Your task to perform on an android device: turn on improve location accuracy Image 0: 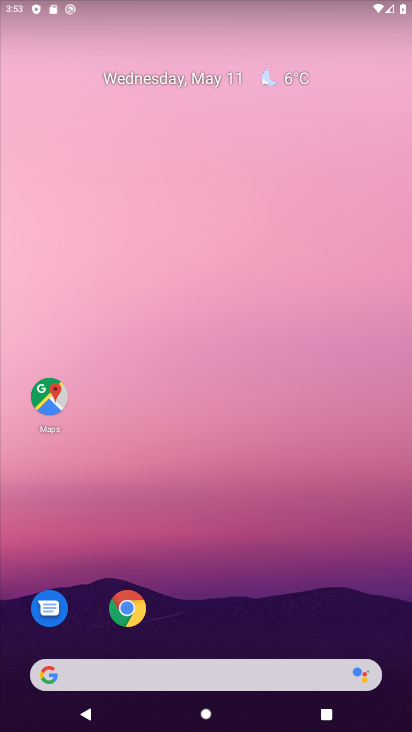
Step 0: drag from (220, 726) to (217, 111)
Your task to perform on an android device: turn on improve location accuracy Image 1: 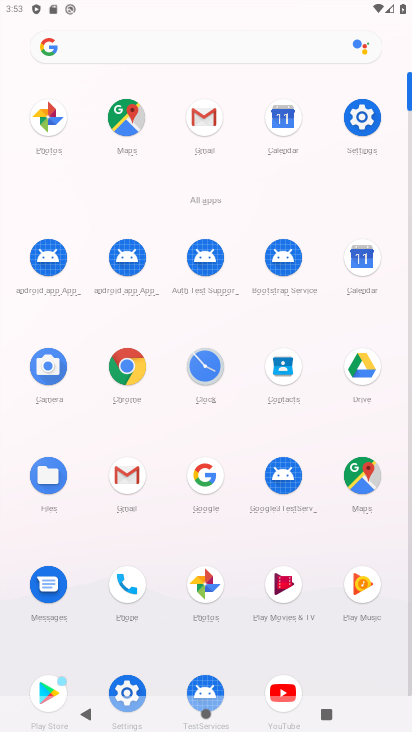
Step 1: click (358, 122)
Your task to perform on an android device: turn on improve location accuracy Image 2: 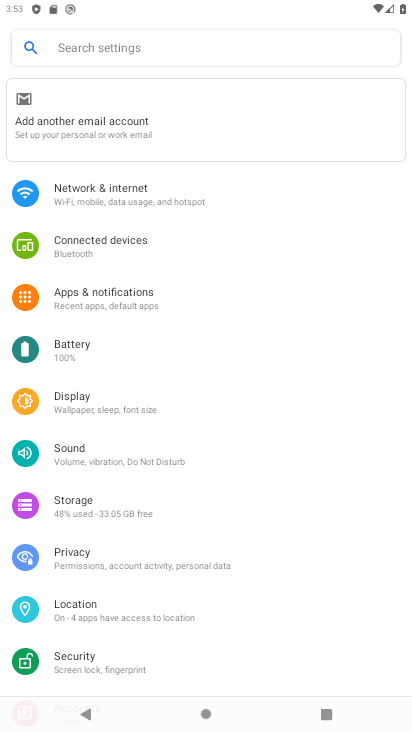
Step 2: click (79, 607)
Your task to perform on an android device: turn on improve location accuracy Image 3: 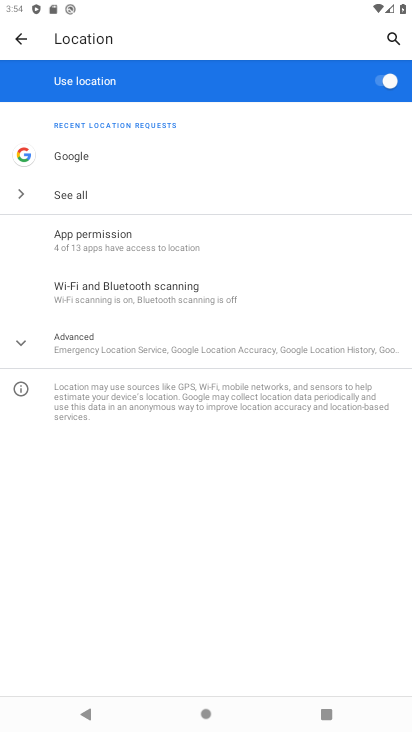
Step 3: click (105, 341)
Your task to perform on an android device: turn on improve location accuracy Image 4: 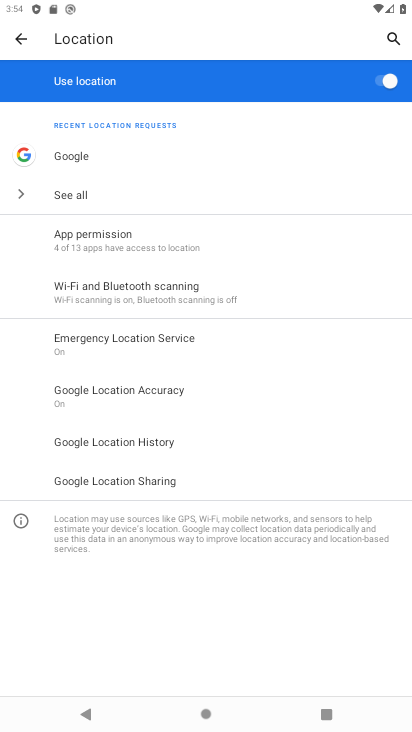
Step 4: click (154, 390)
Your task to perform on an android device: turn on improve location accuracy Image 5: 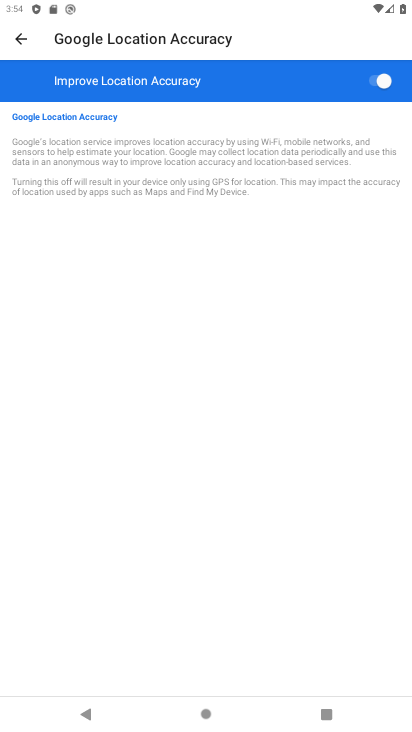
Step 5: task complete